Your task to perform on an android device: refresh tabs in the chrome app Image 0: 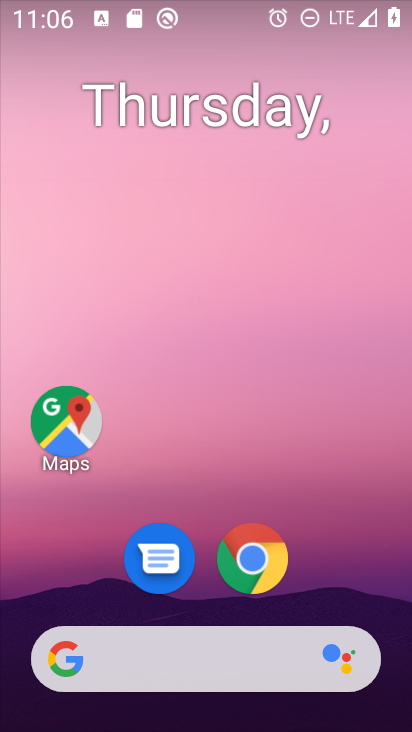
Step 0: click (252, 557)
Your task to perform on an android device: refresh tabs in the chrome app Image 1: 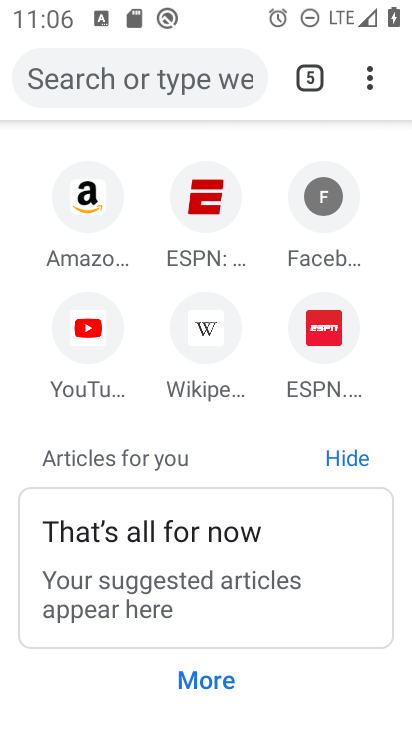
Step 1: click (367, 84)
Your task to perform on an android device: refresh tabs in the chrome app Image 2: 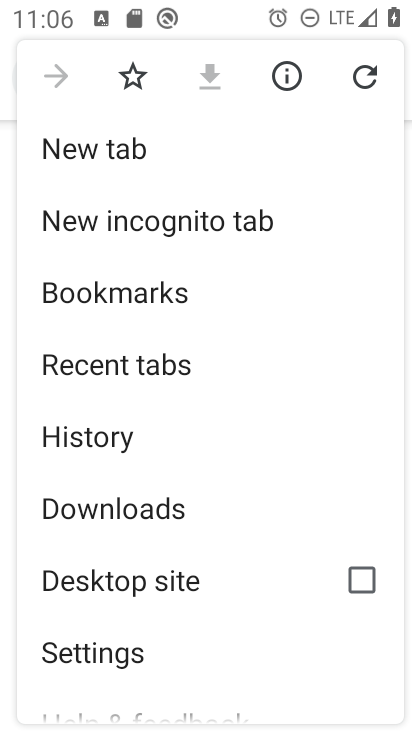
Step 2: click (361, 71)
Your task to perform on an android device: refresh tabs in the chrome app Image 3: 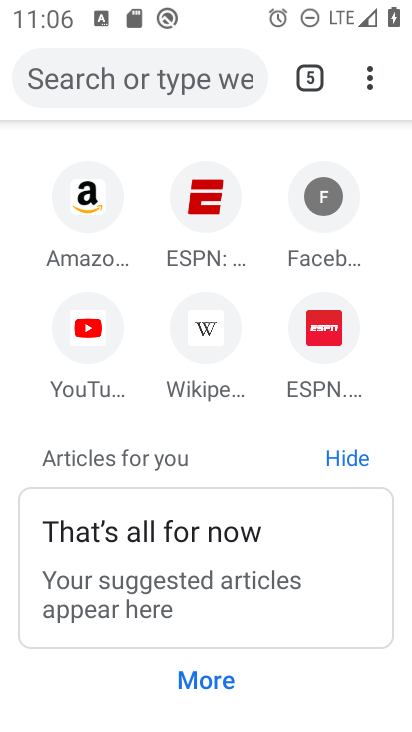
Step 3: task complete